Your task to perform on an android device: Clear all items from cart on ebay. Search for razer nari on ebay, select the first entry, and add it to the cart. Image 0: 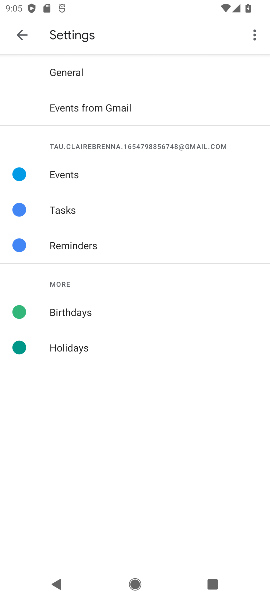
Step 0: press home button
Your task to perform on an android device: Clear all items from cart on ebay. Search for razer nari on ebay, select the first entry, and add it to the cart. Image 1: 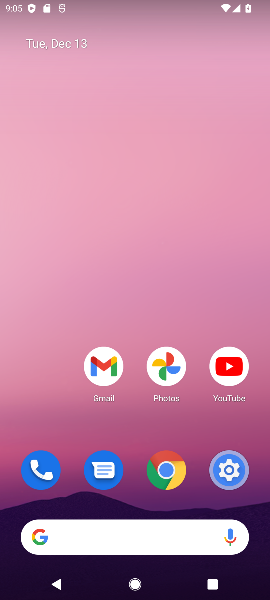
Step 1: click (61, 532)
Your task to perform on an android device: Clear all items from cart on ebay. Search for razer nari on ebay, select the first entry, and add it to the cart. Image 2: 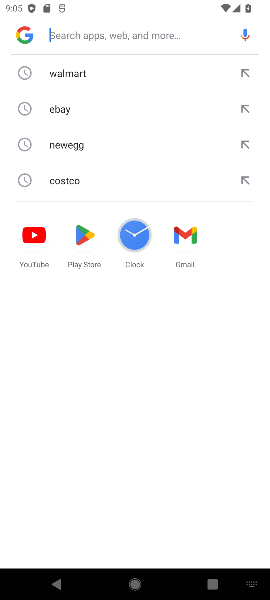
Step 2: type "ebay"
Your task to perform on an android device: Clear all items from cart on ebay. Search for razer nari on ebay, select the first entry, and add it to the cart. Image 3: 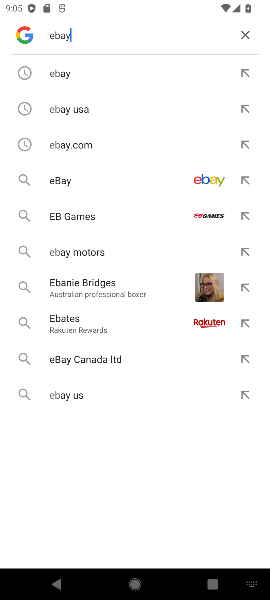
Step 3: press enter
Your task to perform on an android device: Clear all items from cart on ebay. Search for razer nari on ebay, select the first entry, and add it to the cart. Image 4: 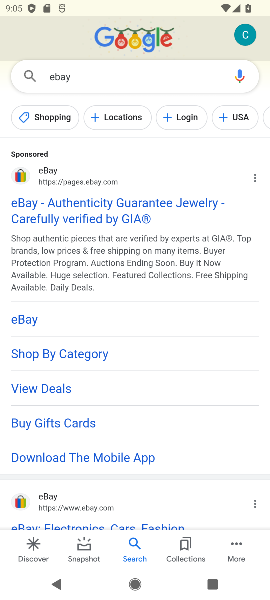
Step 4: click (59, 213)
Your task to perform on an android device: Clear all items from cart on ebay. Search for razer nari on ebay, select the first entry, and add it to the cart. Image 5: 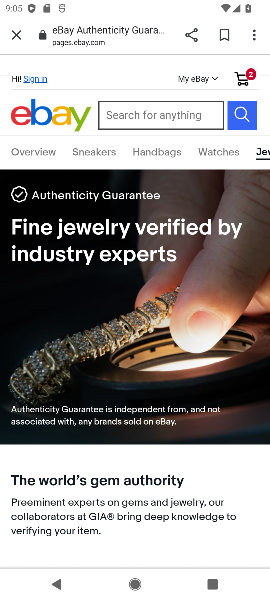
Step 5: click (245, 77)
Your task to perform on an android device: Clear all items from cart on ebay. Search for razer nari on ebay, select the first entry, and add it to the cart. Image 6: 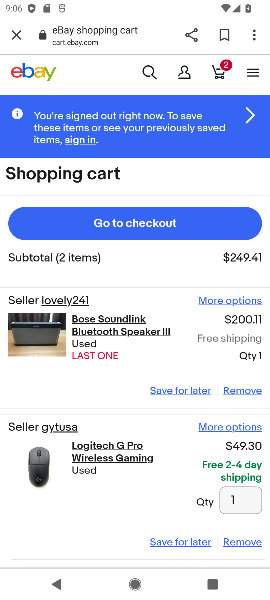
Step 6: click (239, 389)
Your task to perform on an android device: Clear all items from cart on ebay. Search for razer nari on ebay, select the first entry, and add it to the cart. Image 7: 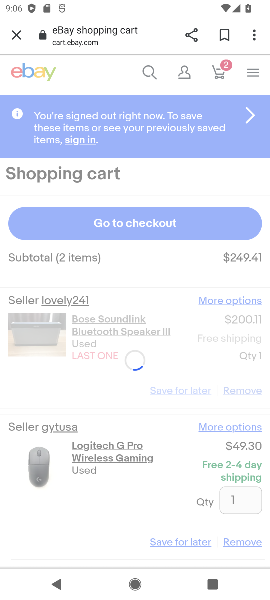
Step 7: drag from (151, 437) to (187, 141)
Your task to perform on an android device: Clear all items from cart on ebay. Search for razer nari on ebay, select the first entry, and add it to the cart. Image 8: 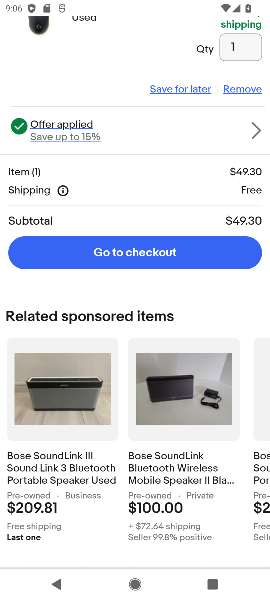
Step 8: click (236, 87)
Your task to perform on an android device: Clear all items from cart on ebay. Search for razer nari on ebay, select the first entry, and add it to the cart. Image 9: 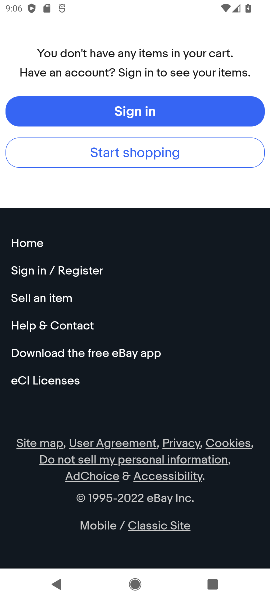
Step 9: drag from (202, 71) to (193, 468)
Your task to perform on an android device: Clear all items from cart on ebay. Search for razer nari on ebay, select the first entry, and add it to the cart. Image 10: 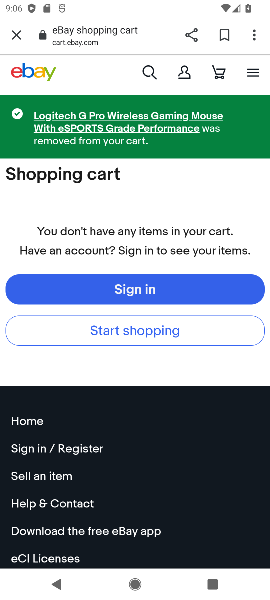
Step 10: click (148, 71)
Your task to perform on an android device: Clear all items from cart on ebay. Search for razer nari on ebay, select the first entry, and add it to the cart. Image 11: 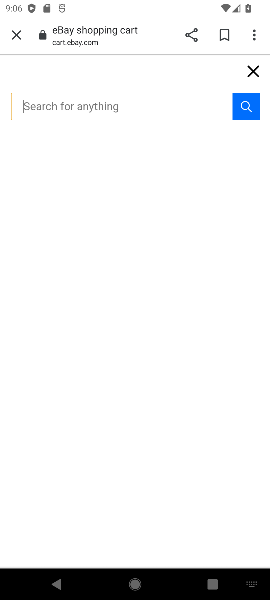
Step 11: type "razer nari"
Your task to perform on an android device: Clear all items from cart on ebay. Search for razer nari on ebay, select the first entry, and add it to the cart. Image 12: 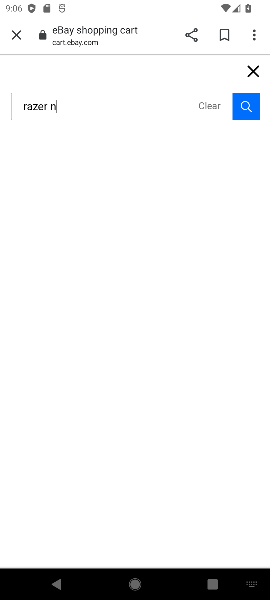
Step 12: press enter
Your task to perform on an android device: Clear all items from cart on ebay. Search for razer nari on ebay, select the first entry, and add it to the cart. Image 13: 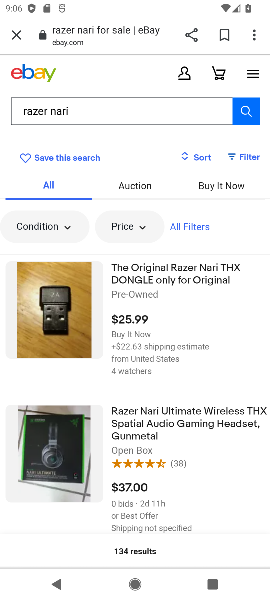
Step 13: click (150, 432)
Your task to perform on an android device: Clear all items from cart on ebay. Search for razer nari on ebay, select the first entry, and add it to the cart. Image 14: 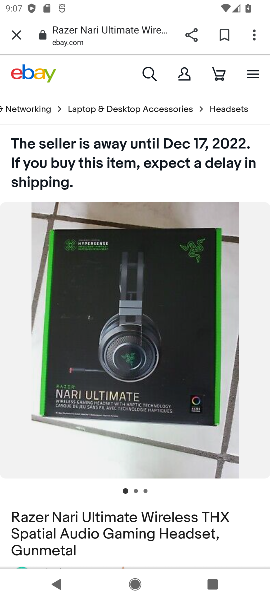
Step 14: drag from (122, 510) to (141, 220)
Your task to perform on an android device: Clear all items from cart on ebay. Search for razer nari on ebay, select the first entry, and add it to the cart. Image 15: 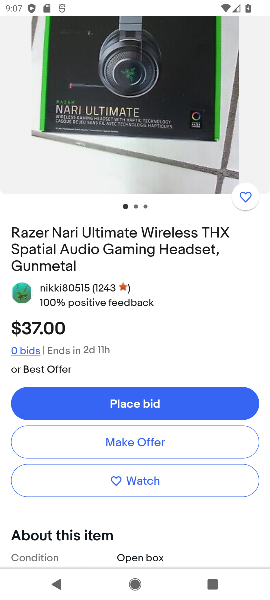
Step 15: click (131, 402)
Your task to perform on an android device: Clear all items from cart on ebay. Search for razer nari on ebay, select the first entry, and add it to the cart. Image 16: 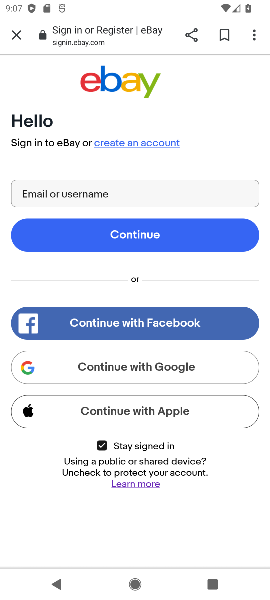
Step 16: task complete